Your task to perform on an android device: Open maps Image 0: 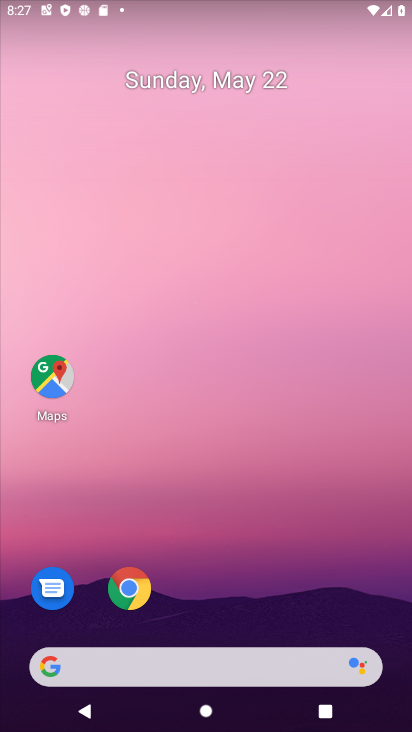
Step 0: click (48, 379)
Your task to perform on an android device: Open maps Image 1: 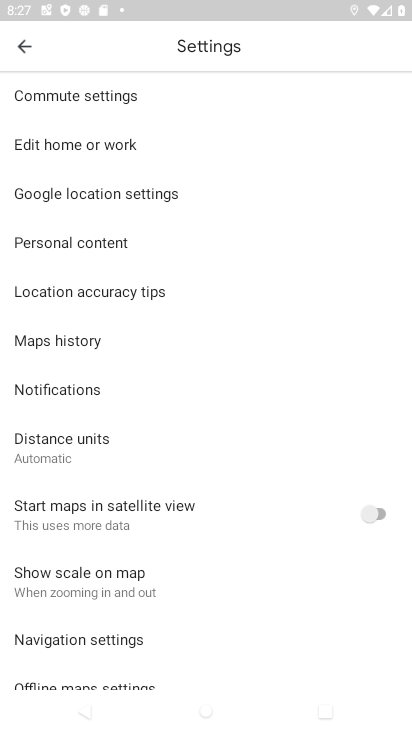
Step 1: click (17, 48)
Your task to perform on an android device: Open maps Image 2: 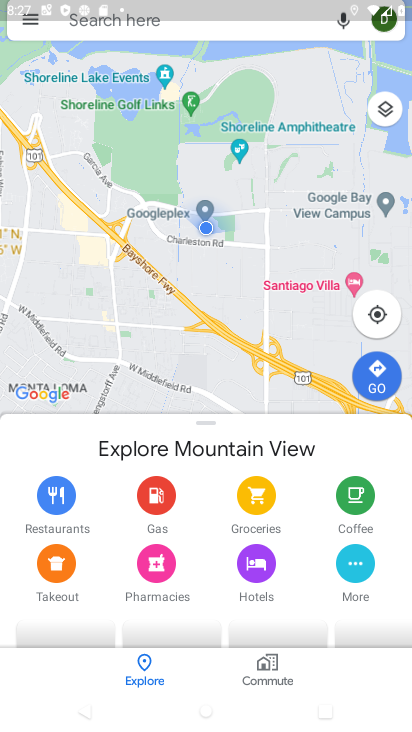
Step 2: click (22, 49)
Your task to perform on an android device: Open maps Image 3: 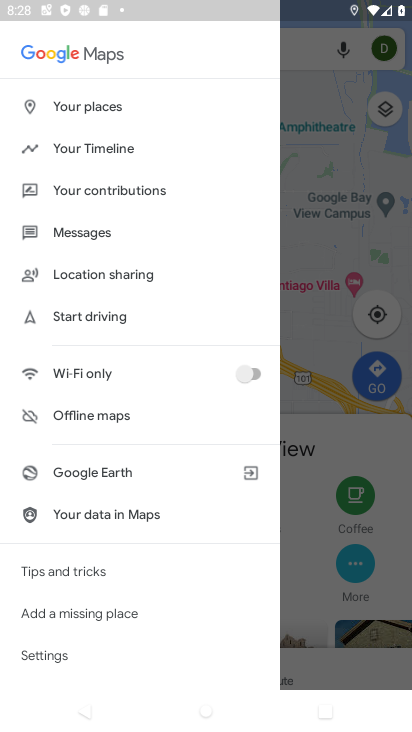
Step 3: click (309, 229)
Your task to perform on an android device: Open maps Image 4: 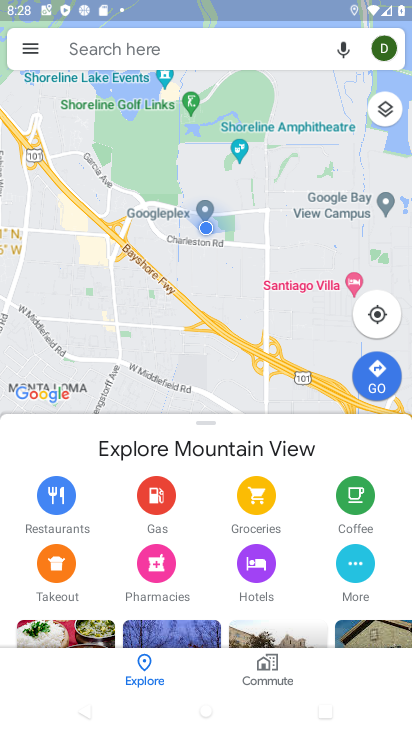
Step 4: task complete